Your task to perform on an android device: Open maps Image 0: 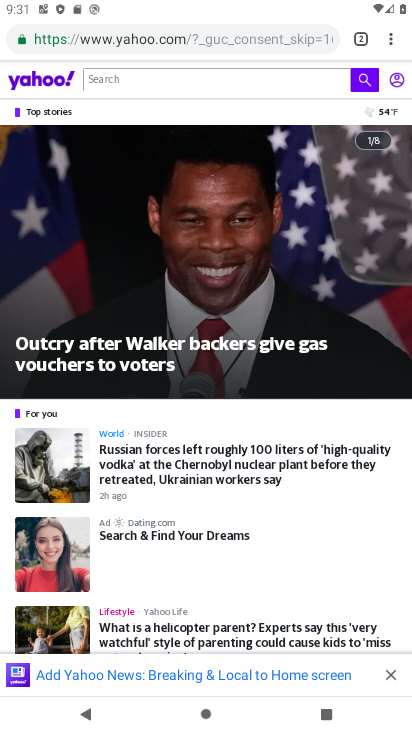
Step 0: press back button
Your task to perform on an android device: Open maps Image 1: 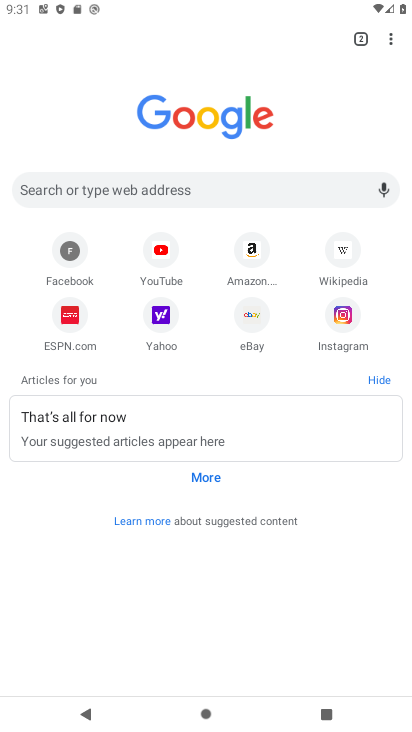
Step 1: press back button
Your task to perform on an android device: Open maps Image 2: 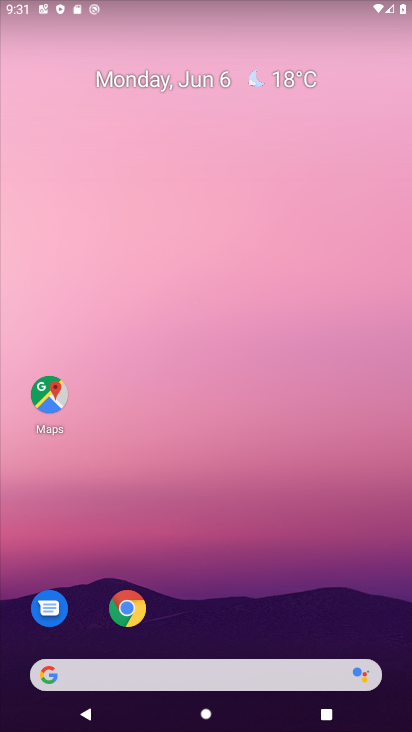
Step 2: click (45, 401)
Your task to perform on an android device: Open maps Image 3: 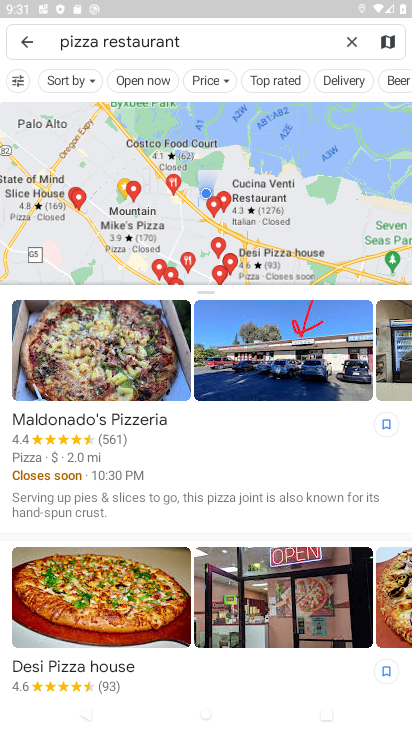
Step 3: click (351, 42)
Your task to perform on an android device: Open maps Image 4: 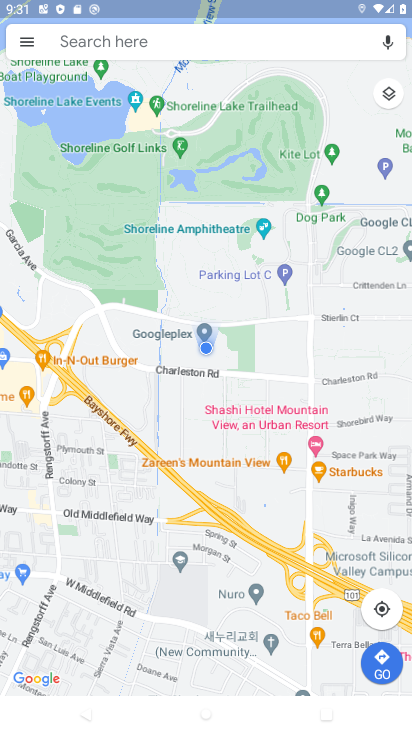
Step 4: task complete